Your task to perform on an android device: Open Youtube and go to the subscriptions tab Image 0: 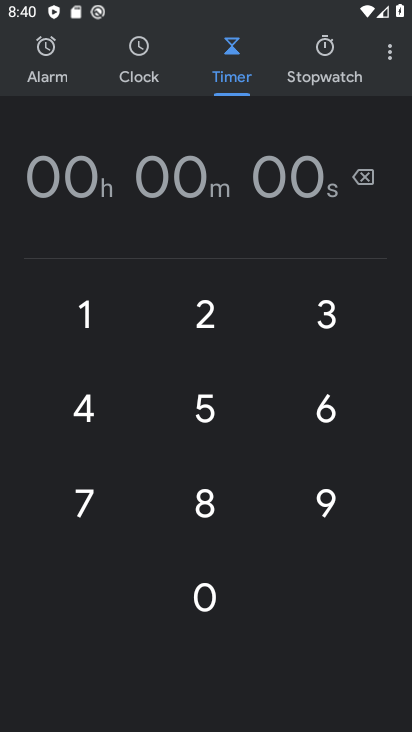
Step 0: press home button
Your task to perform on an android device: Open Youtube and go to the subscriptions tab Image 1: 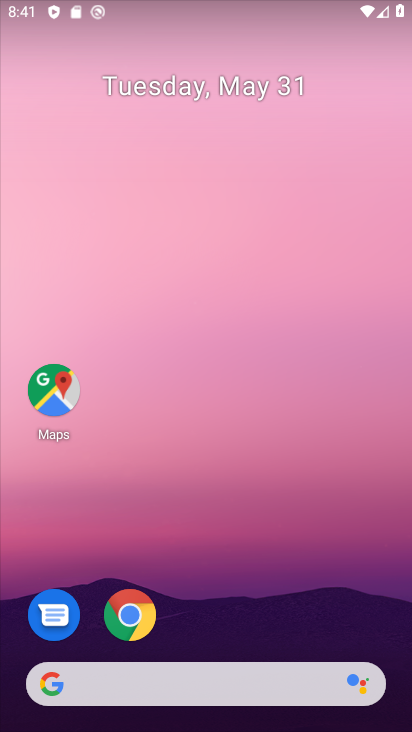
Step 1: drag from (294, 554) to (345, 88)
Your task to perform on an android device: Open Youtube and go to the subscriptions tab Image 2: 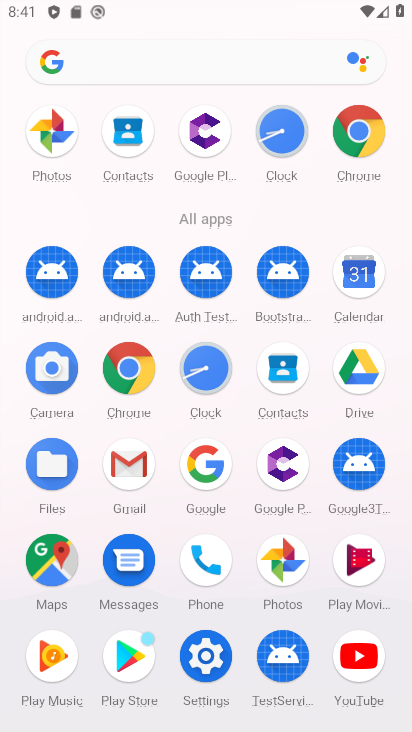
Step 2: click (368, 657)
Your task to perform on an android device: Open Youtube and go to the subscriptions tab Image 3: 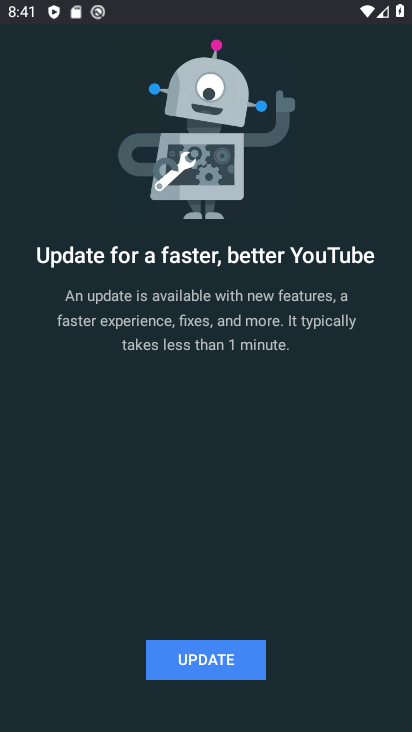
Step 3: click (236, 658)
Your task to perform on an android device: Open Youtube and go to the subscriptions tab Image 4: 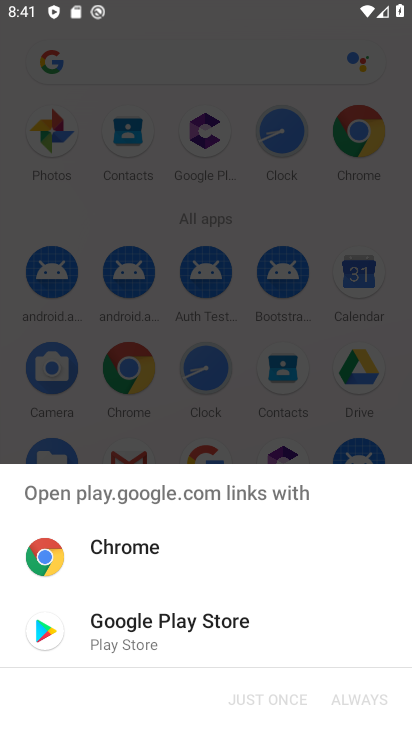
Step 4: click (177, 617)
Your task to perform on an android device: Open Youtube and go to the subscriptions tab Image 5: 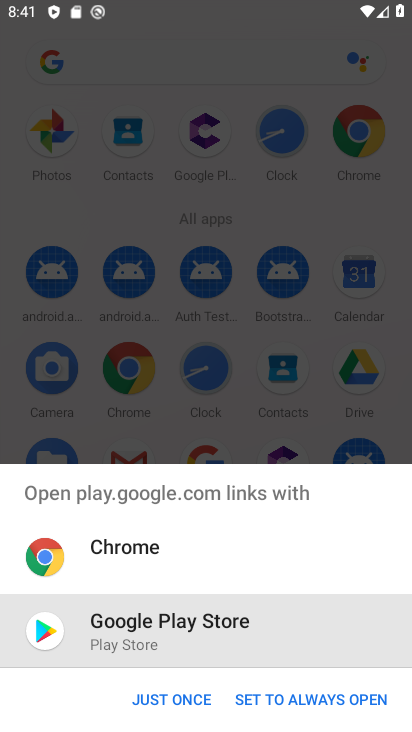
Step 5: click (166, 693)
Your task to perform on an android device: Open Youtube and go to the subscriptions tab Image 6: 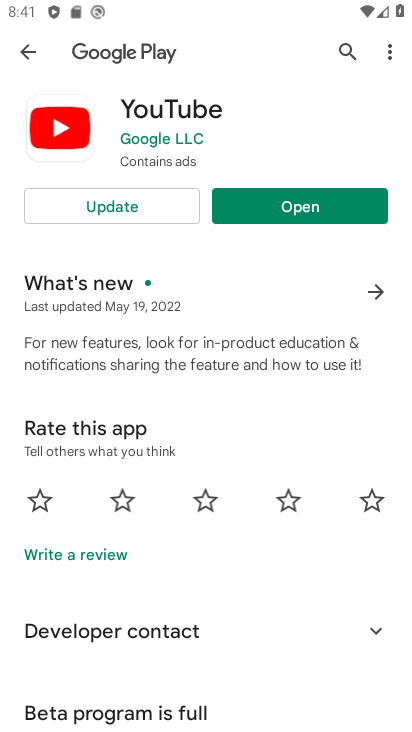
Step 6: click (131, 207)
Your task to perform on an android device: Open Youtube and go to the subscriptions tab Image 7: 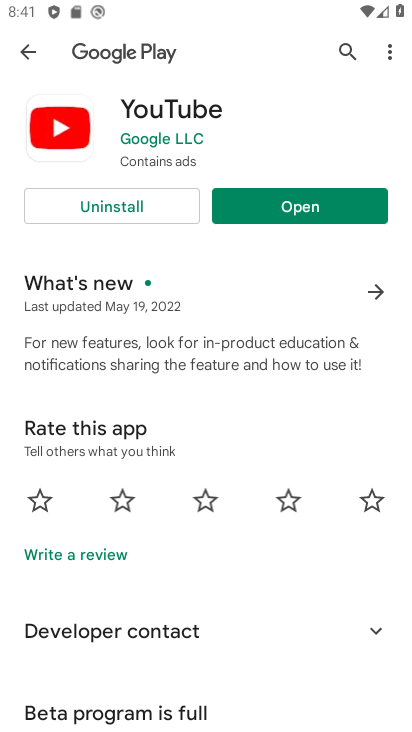
Step 7: click (250, 204)
Your task to perform on an android device: Open Youtube and go to the subscriptions tab Image 8: 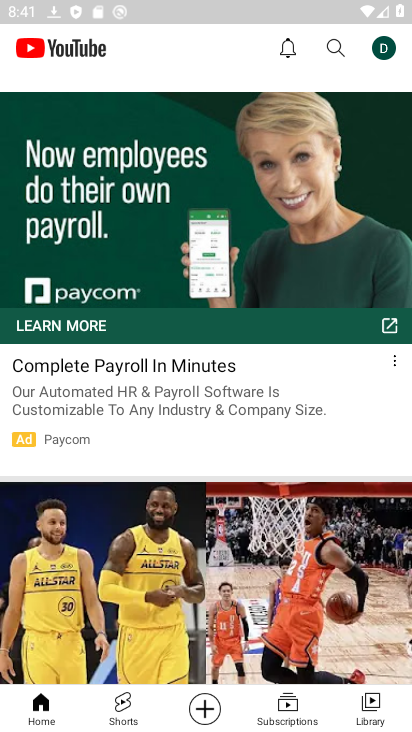
Step 8: click (288, 710)
Your task to perform on an android device: Open Youtube and go to the subscriptions tab Image 9: 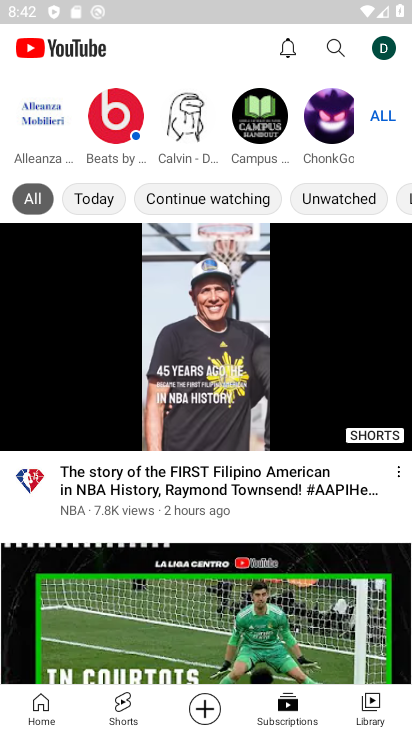
Step 9: task complete